Your task to perform on an android device: Open Amazon Image 0: 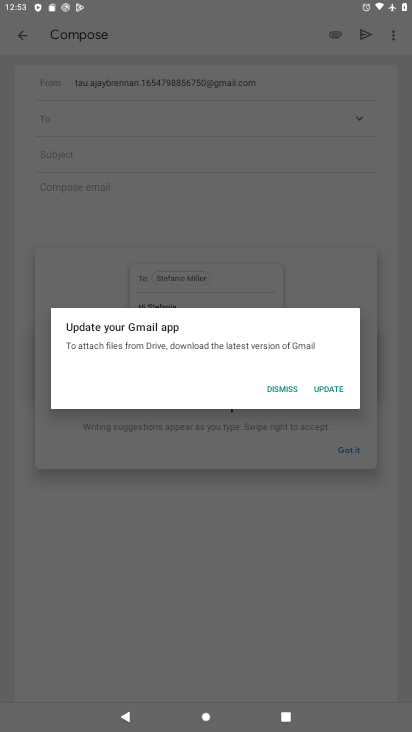
Step 0: press home button
Your task to perform on an android device: Open Amazon Image 1: 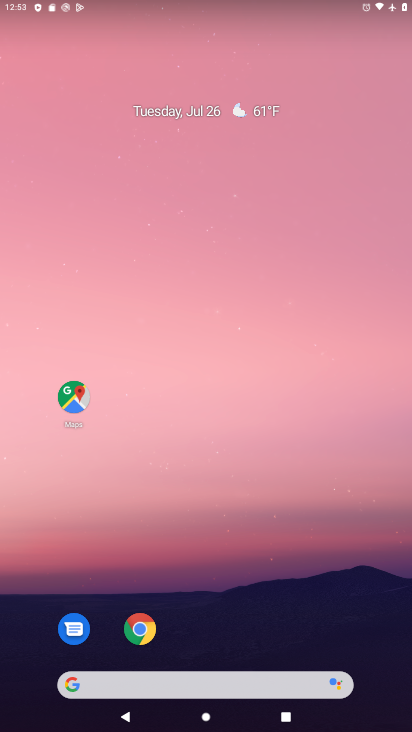
Step 1: drag from (204, 642) to (137, 109)
Your task to perform on an android device: Open Amazon Image 2: 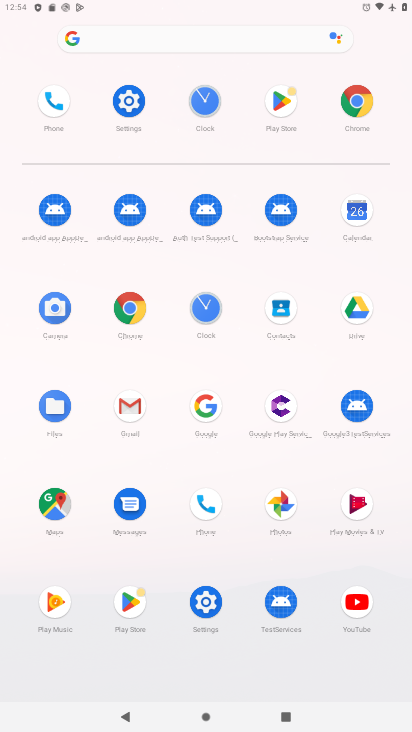
Step 2: click (133, 319)
Your task to perform on an android device: Open Amazon Image 3: 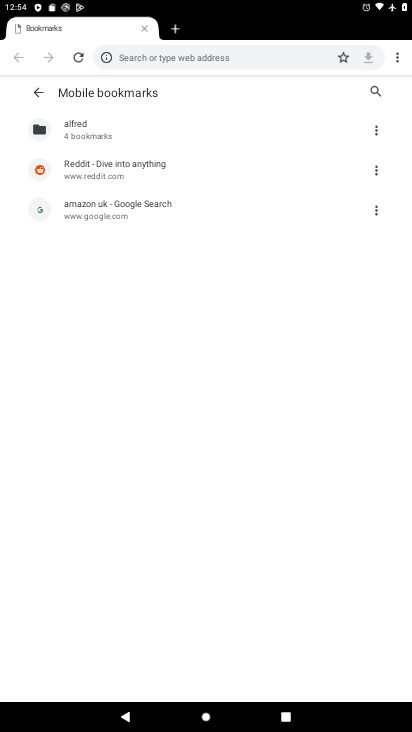
Step 3: click (173, 31)
Your task to perform on an android device: Open Amazon Image 4: 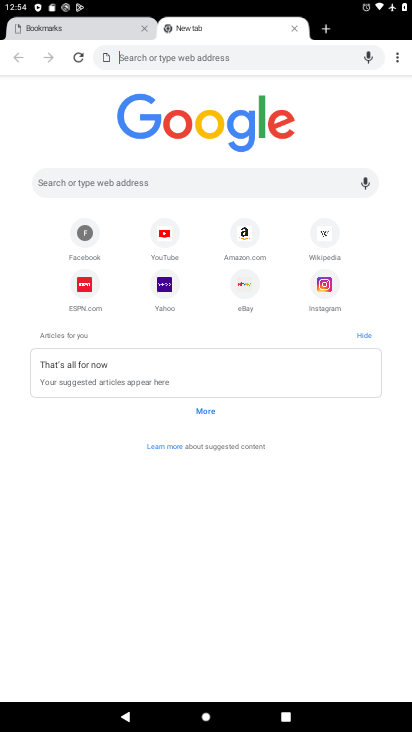
Step 4: click (249, 234)
Your task to perform on an android device: Open Amazon Image 5: 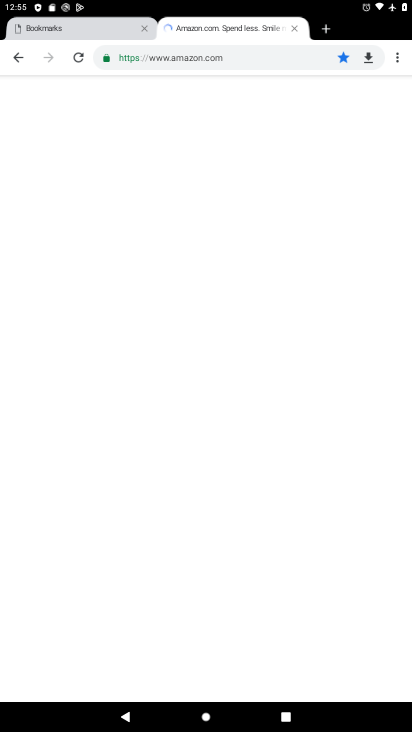
Step 5: task complete